Your task to perform on an android device: What's the weather going to be this weekend? Image 0: 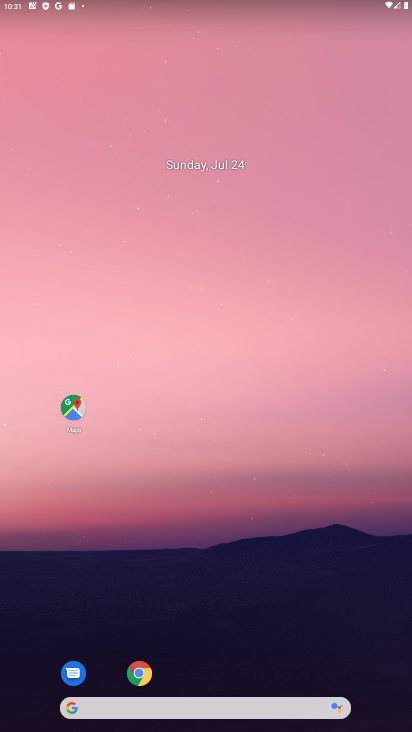
Step 0: click (80, 703)
Your task to perform on an android device: What's the weather going to be this weekend? Image 1: 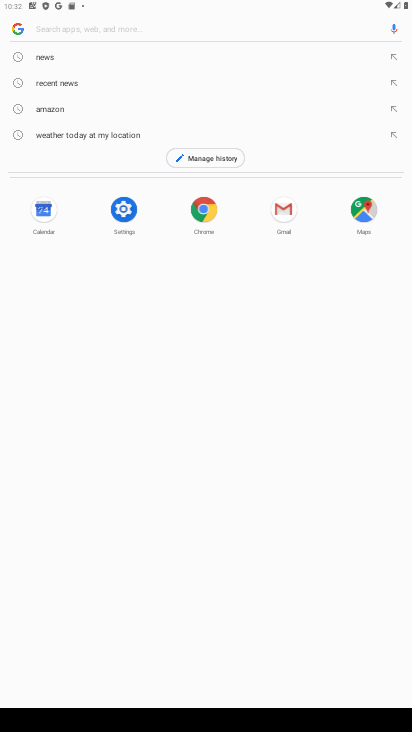
Step 1: type "What's the weather going to be this weekend?"
Your task to perform on an android device: What's the weather going to be this weekend? Image 2: 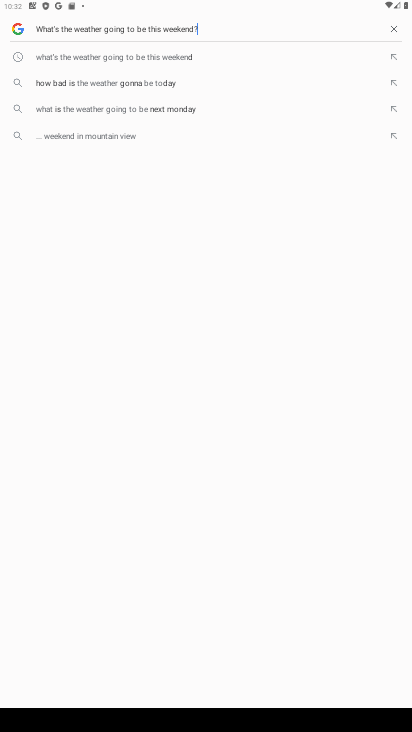
Step 2: type ""
Your task to perform on an android device: What's the weather going to be this weekend? Image 3: 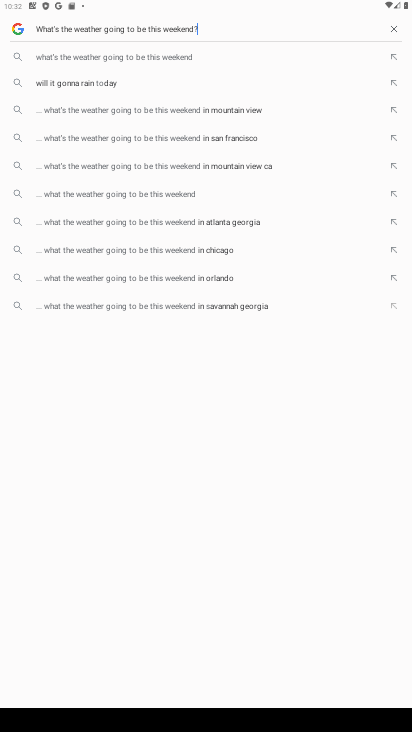
Step 3: click (89, 59)
Your task to perform on an android device: What's the weather going to be this weekend? Image 4: 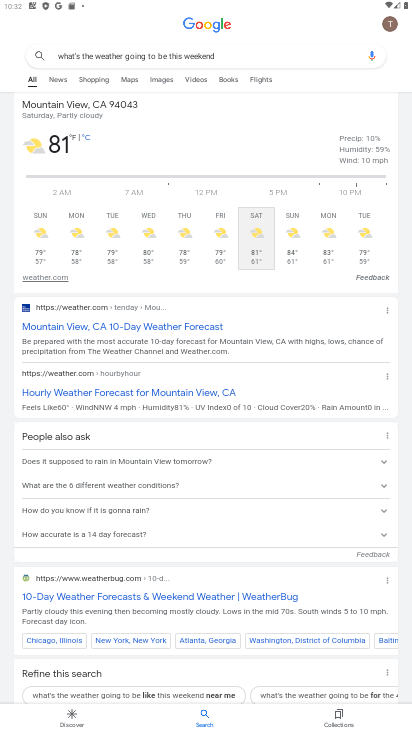
Step 4: task complete